Your task to perform on an android device: open wifi settings Image 0: 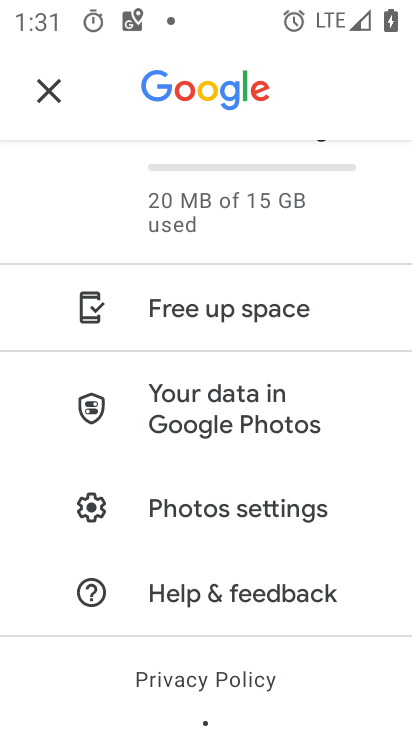
Step 0: press home button
Your task to perform on an android device: open wifi settings Image 1: 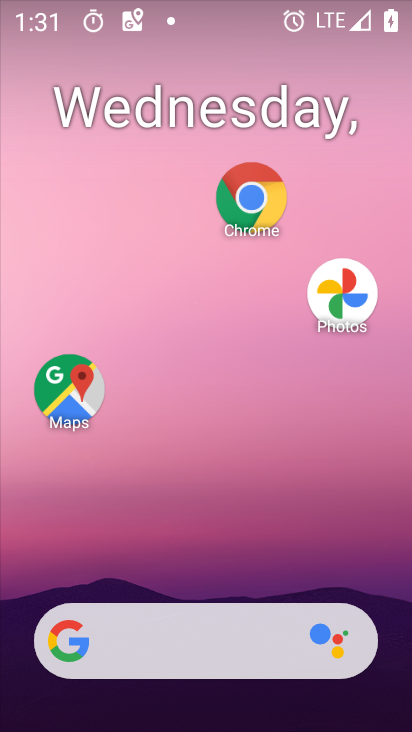
Step 1: drag from (221, 655) to (275, 175)
Your task to perform on an android device: open wifi settings Image 2: 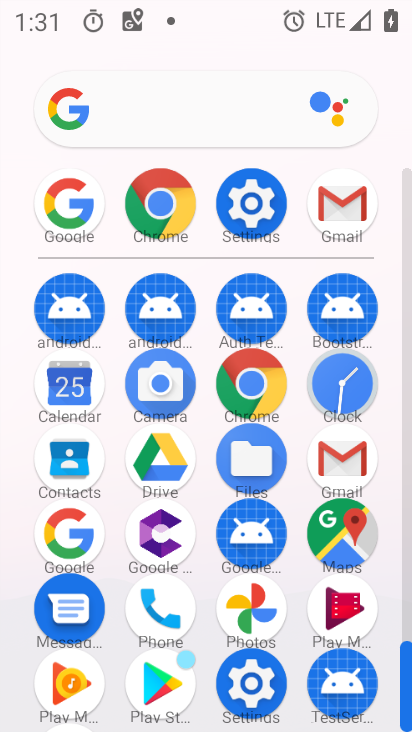
Step 2: click (273, 217)
Your task to perform on an android device: open wifi settings Image 3: 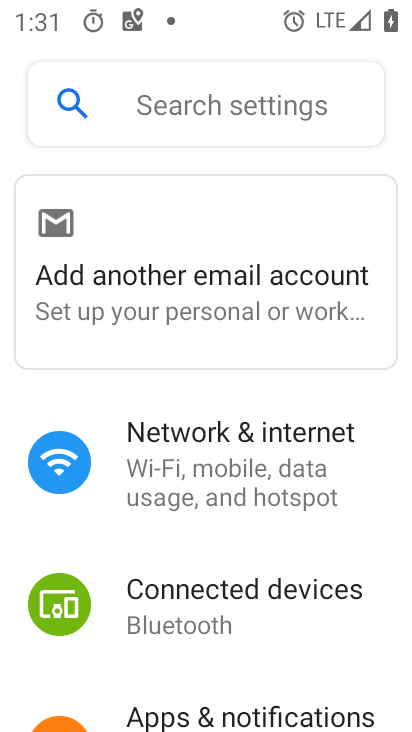
Step 3: click (253, 490)
Your task to perform on an android device: open wifi settings Image 4: 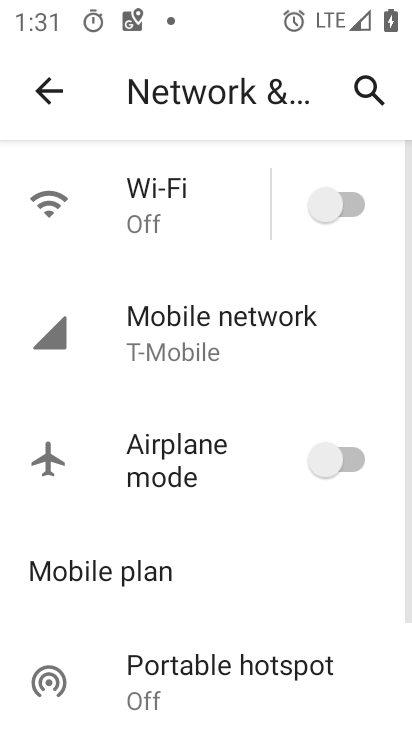
Step 4: click (188, 209)
Your task to perform on an android device: open wifi settings Image 5: 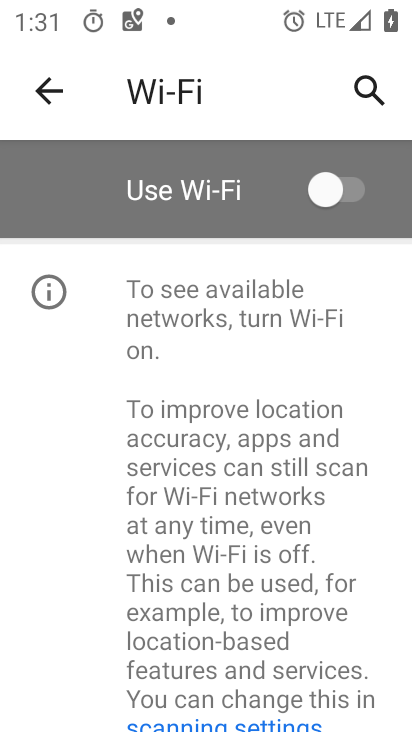
Step 5: task complete